Your task to perform on an android device: What is the recent news? Image 0: 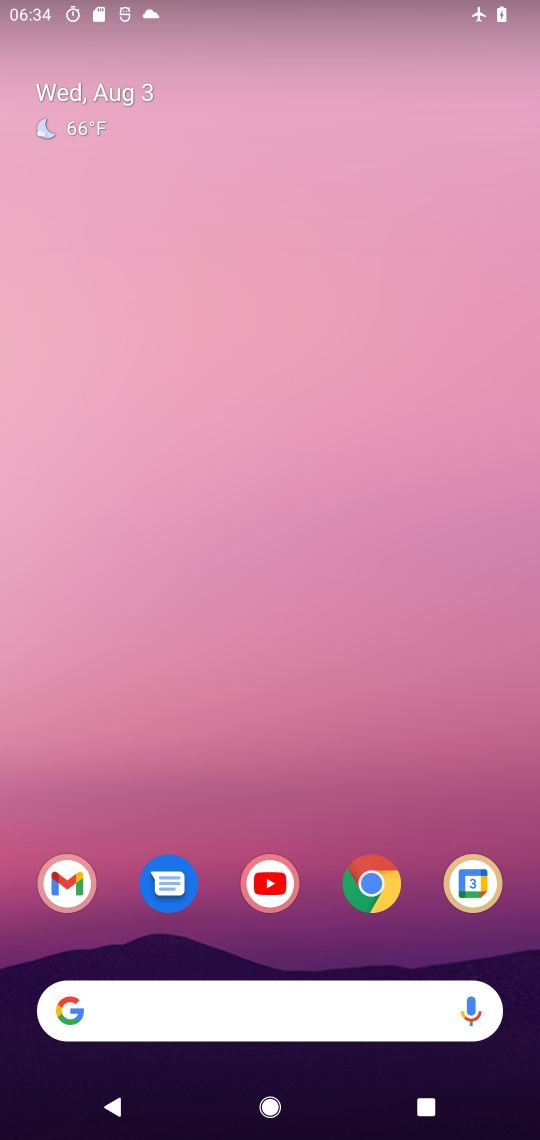
Step 0: drag from (402, 664) to (435, 441)
Your task to perform on an android device: What is the recent news? Image 1: 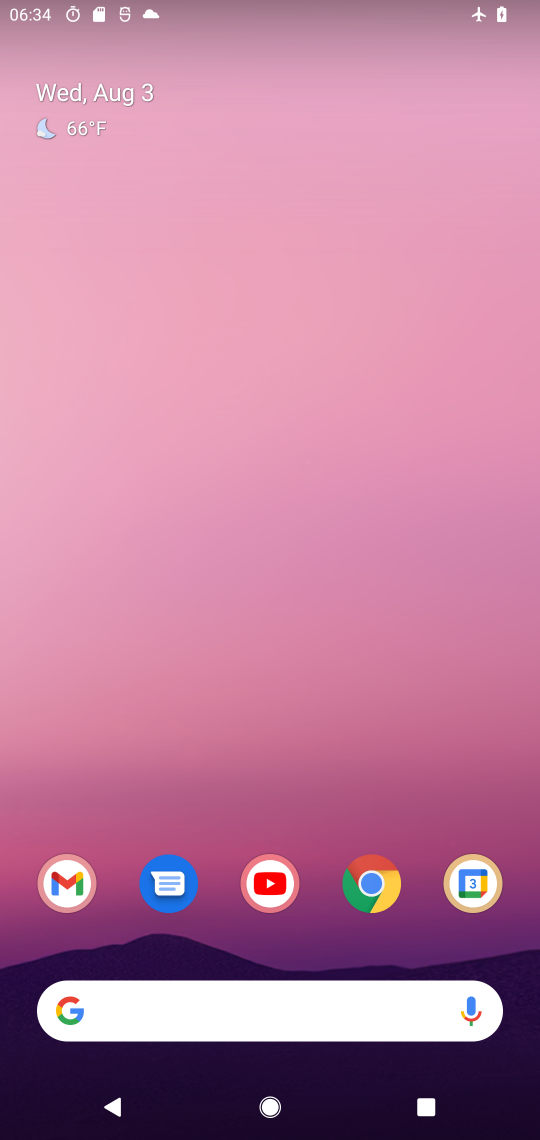
Step 1: drag from (240, 736) to (325, 190)
Your task to perform on an android device: What is the recent news? Image 2: 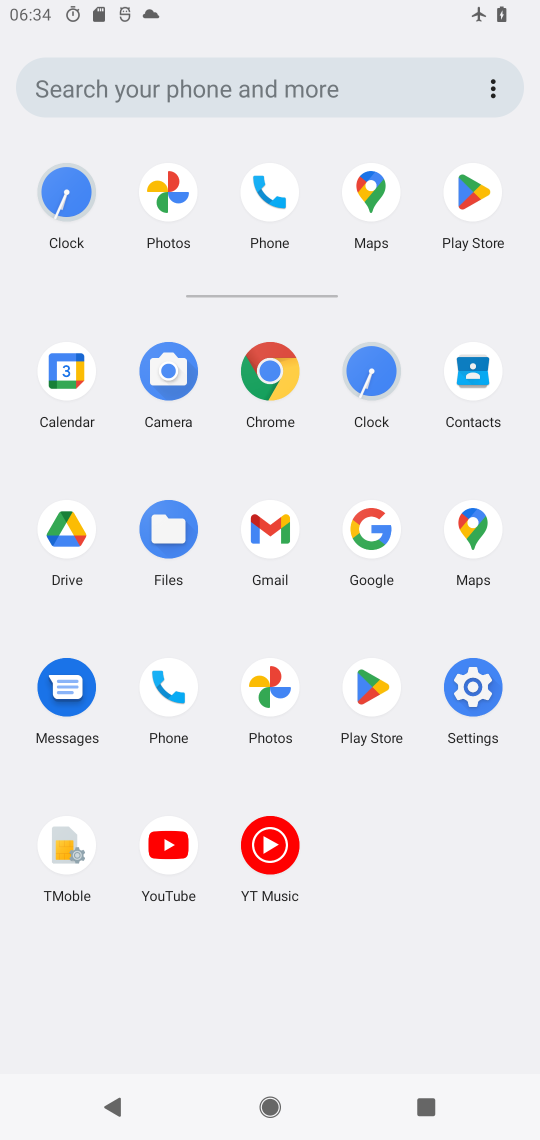
Step 2: click (370, 538)
Your task to perform on an android device: What is the recent news? Image 3: 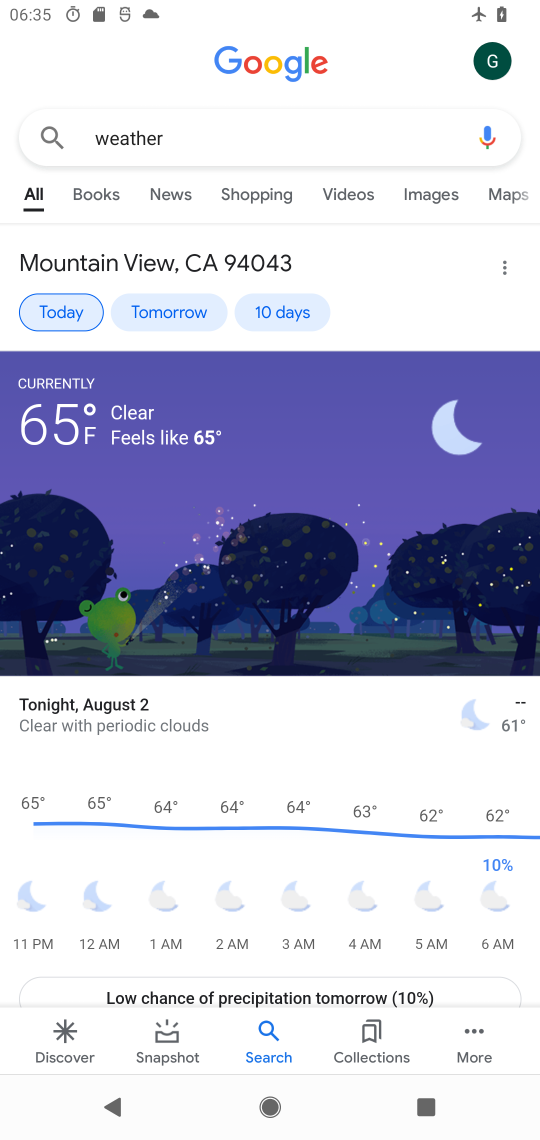
Step 3: click (189, 128)
Your task to perform on an android device: What is the recent news? Image 4: 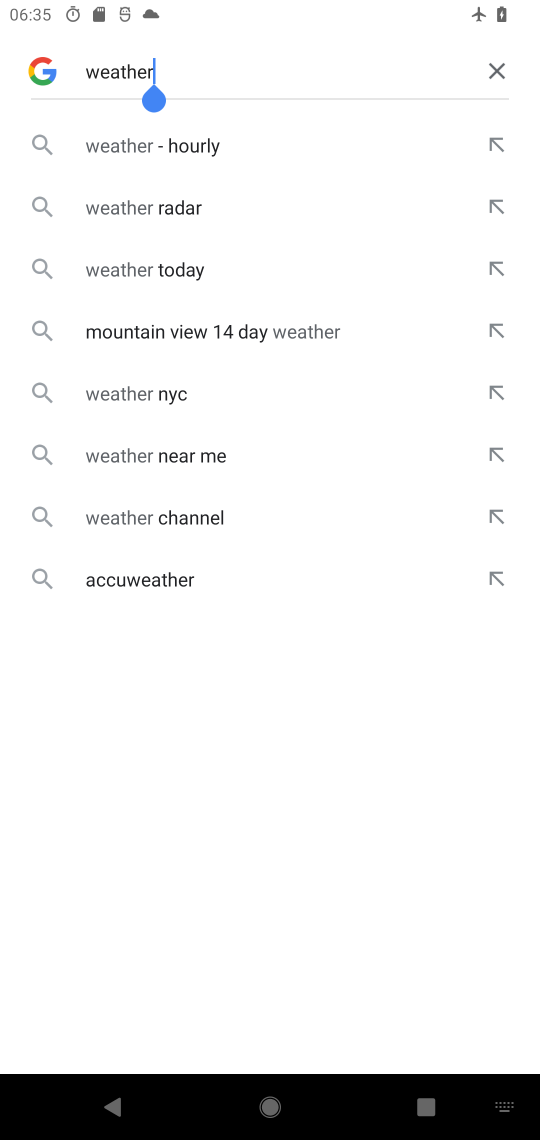
Step 4: click (501, 74)
Your task to perform on an android device: What is the recent news? Image 5: 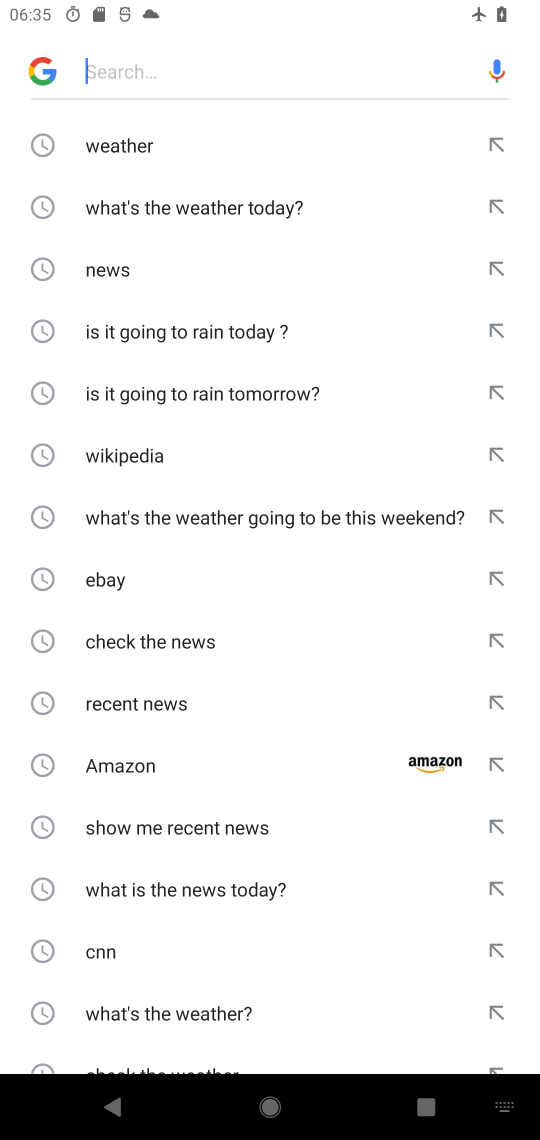
Step 5: click (160, 709)
Your task to perform on an android device: What is the recent news? Image 6: 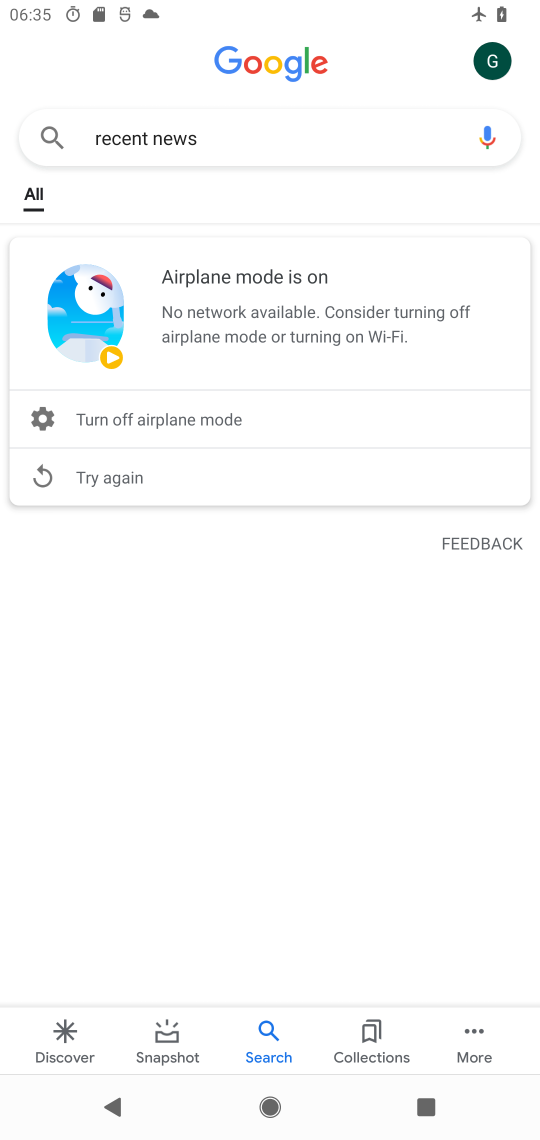
Step 6: task complete